Your task to perform on an android device: check out phone information Image 0: 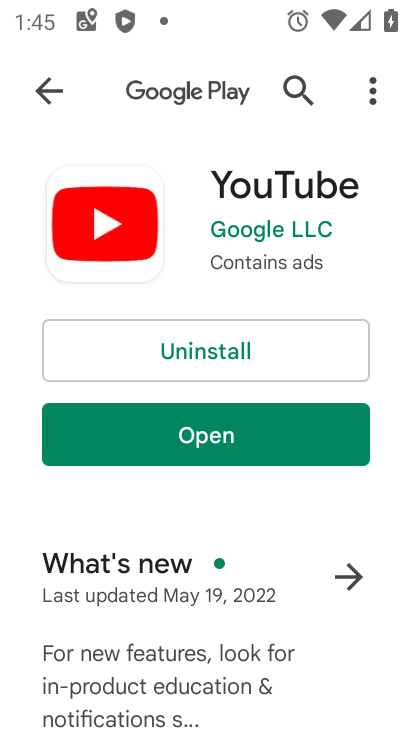
Step 0: press home button
Your task to perform on an android device: check out phone information Image 1: 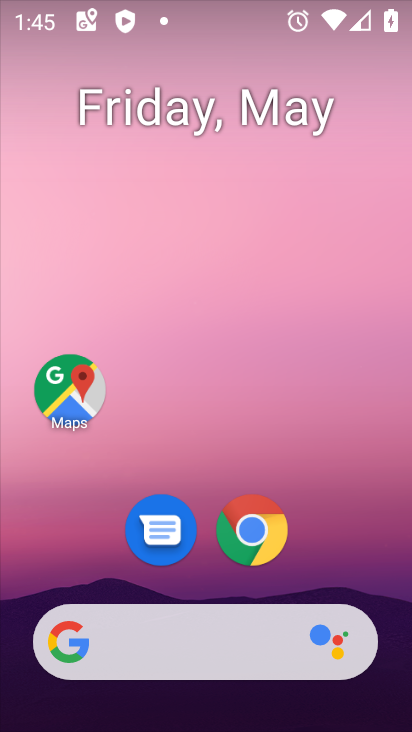
Step 1: drag from (198, 577) to (191, 4)
Your task to perform on an android device: check out phone information Image 2: 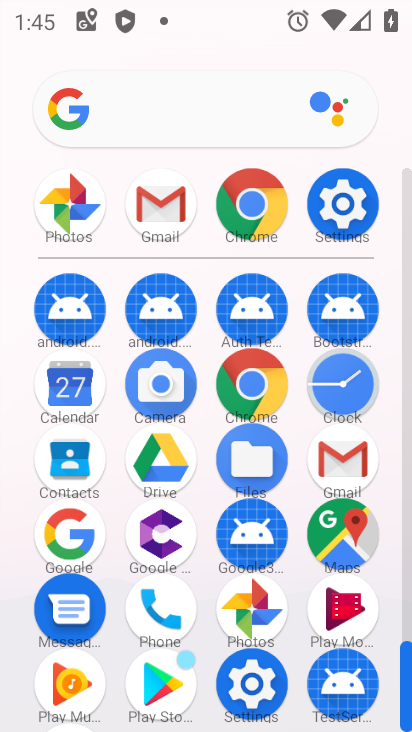
Step 2: click (337, 201)
Your task to perform on an android device: check out phone information Image 3: 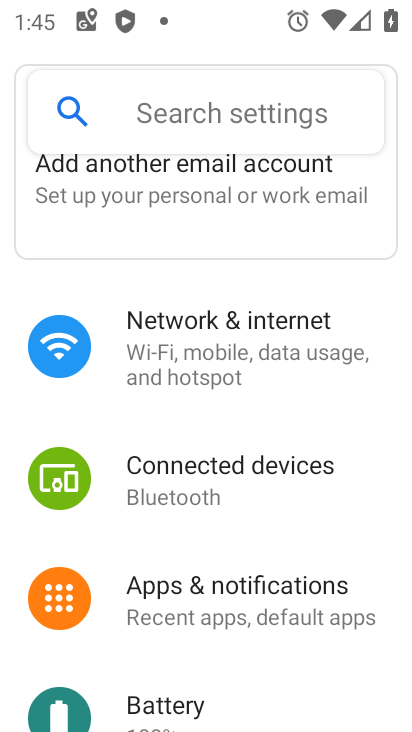
Step 3: drag from (245, 646) to (234, 261)
Your task to perform on an android device: check out phone information Image 4: 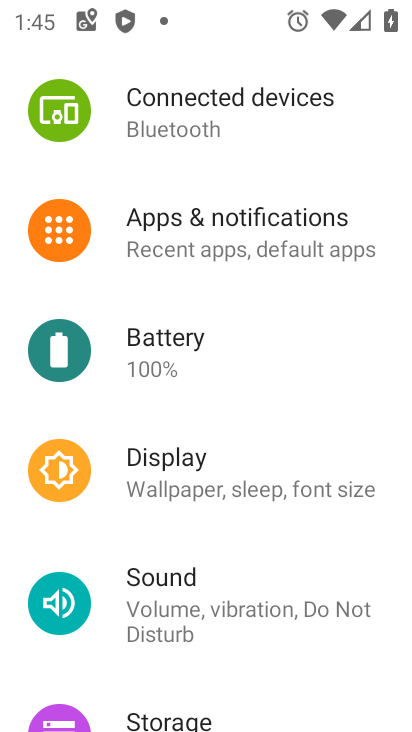
Step 4: drag from (232, 609) to (216, 34)
Your task to perform on an android device: check out phone information Image 5: 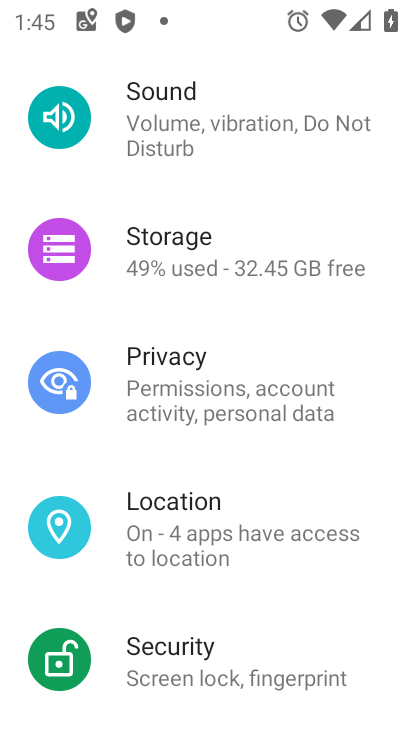
Step 5: drag from (204, 639) to (186, 95)
Your task to perform on an android device: check out phone information Image 6: 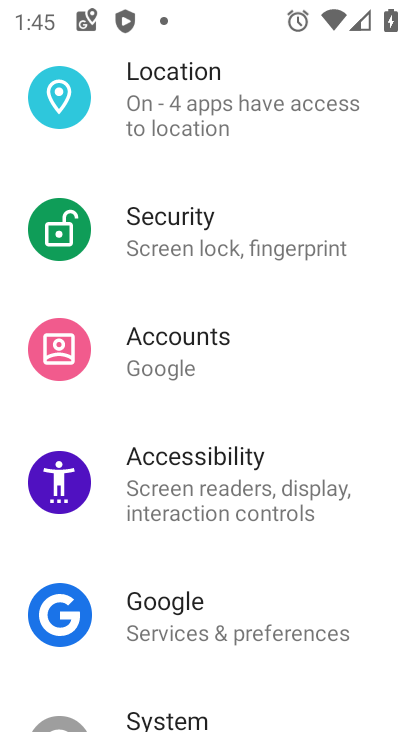
Step 6: drag from (180, 604) to (173, 0)
Your task to perform on an android device: check out phone information Image 7: 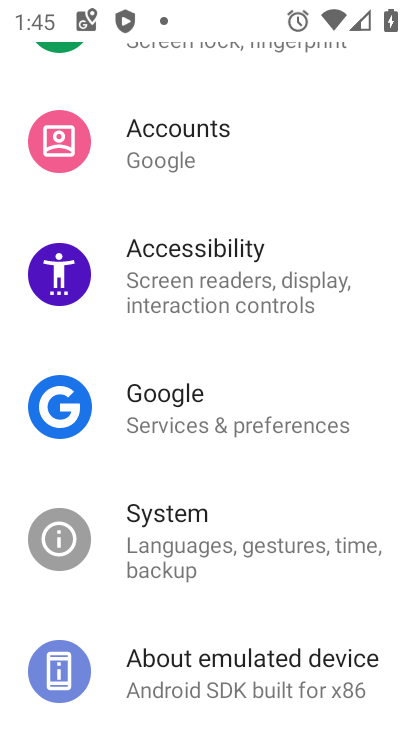
Step 7: click (195, 654)
Your task to perform on an android device: check out phone information Image 8: 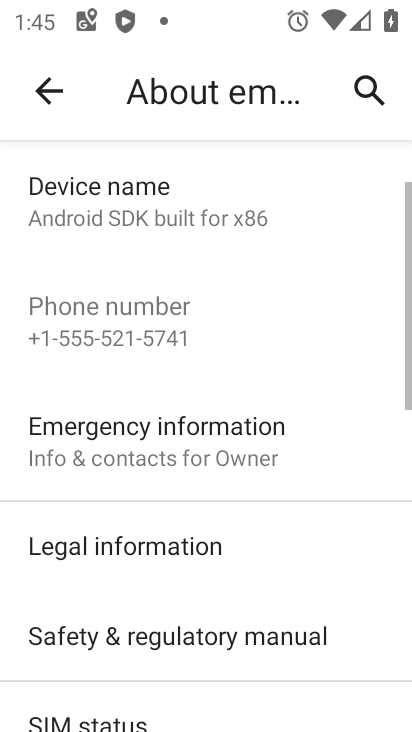
Step 8: task complete